Your task to perform on an android device: delete the emails in spam in the gmail app Image 0: 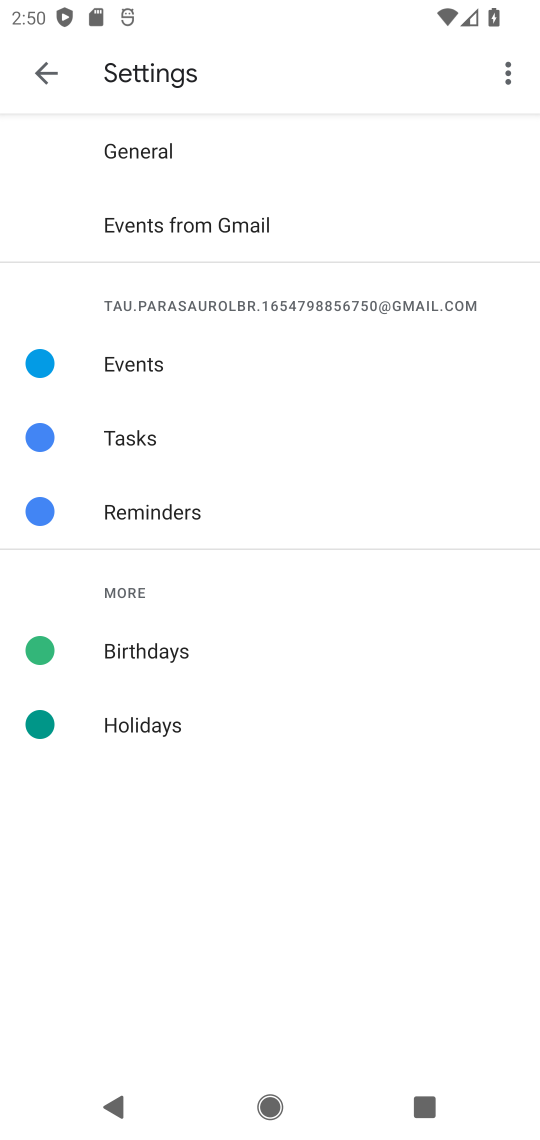
Step 0: press home button
Your task to perform on an android device: delete the emails in spam in the gmail app Image 1: 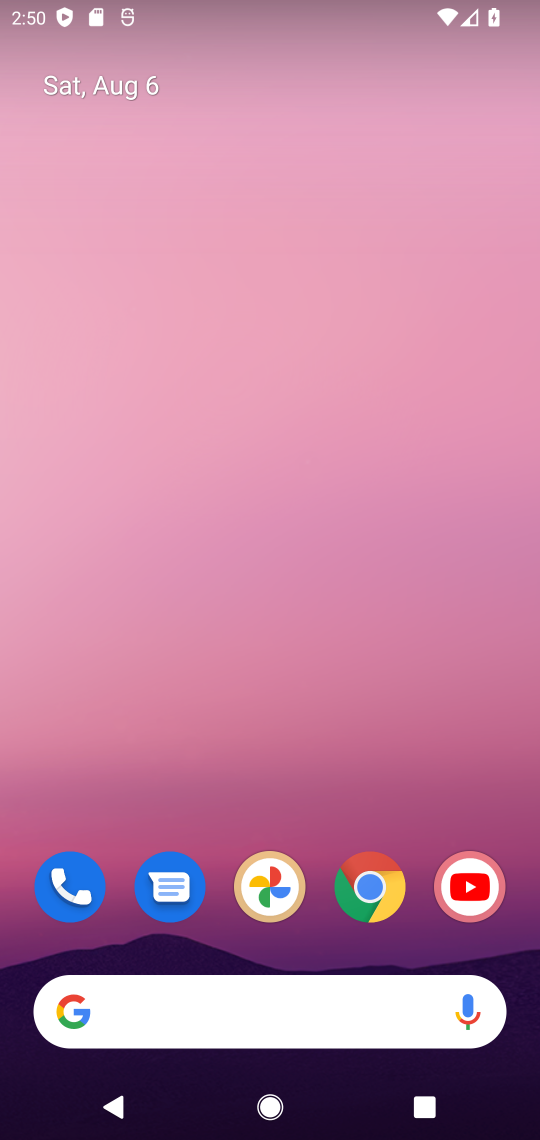
Step 1: drag from (343, 757) to (357, 261)
Your task to perform on an android device: delete the emails in spam in the gmail app Image 2: 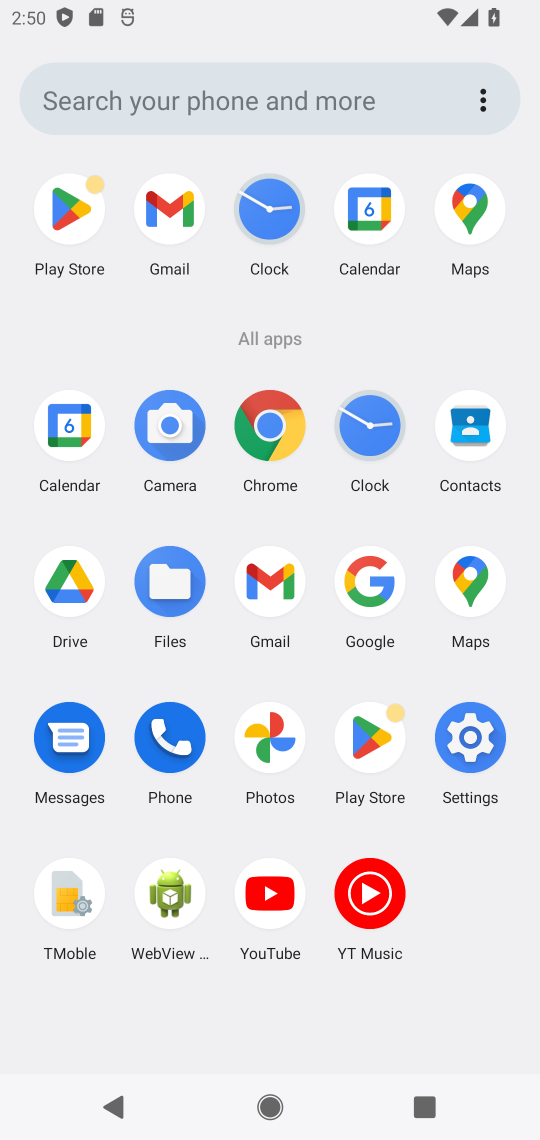
Step 2: click (257, 597)
Your task to perform on an android device: delete the emails in spam in the gmail app Image 3: 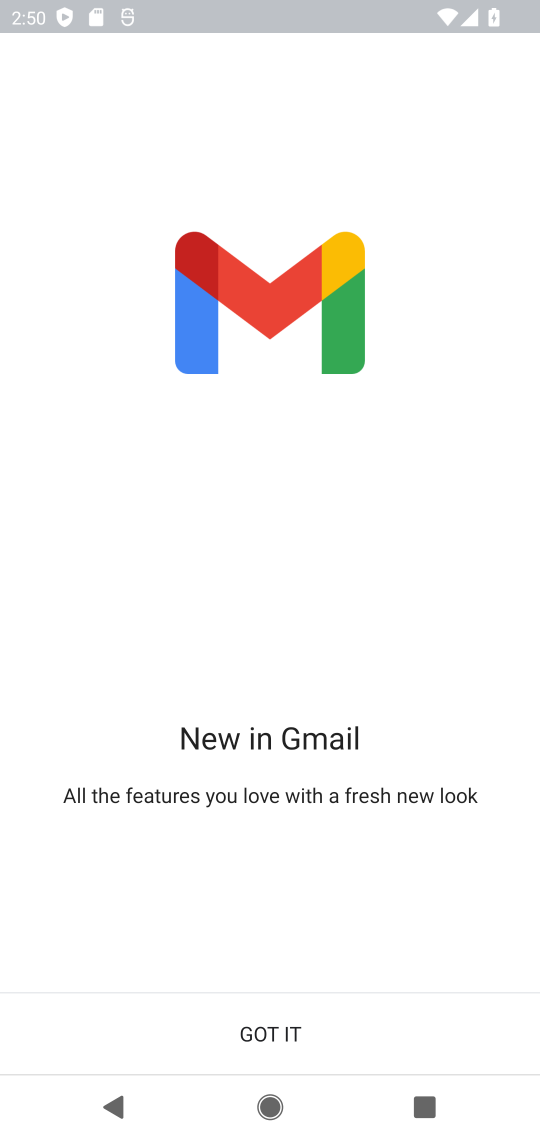
Step 3: click (277, 1038)
Your task to perform on an android device: delete the emails in spam in the gmail app Image 4: 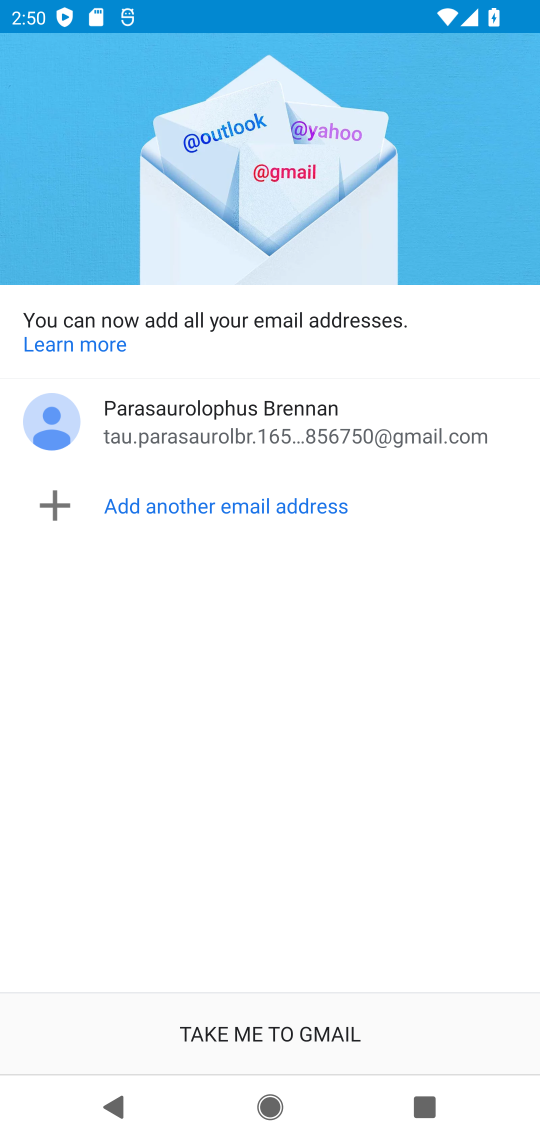
Step 4: click (277, 1038)
Your task to perform on an android device: delete the emails in spam in the gmail app Image 5: 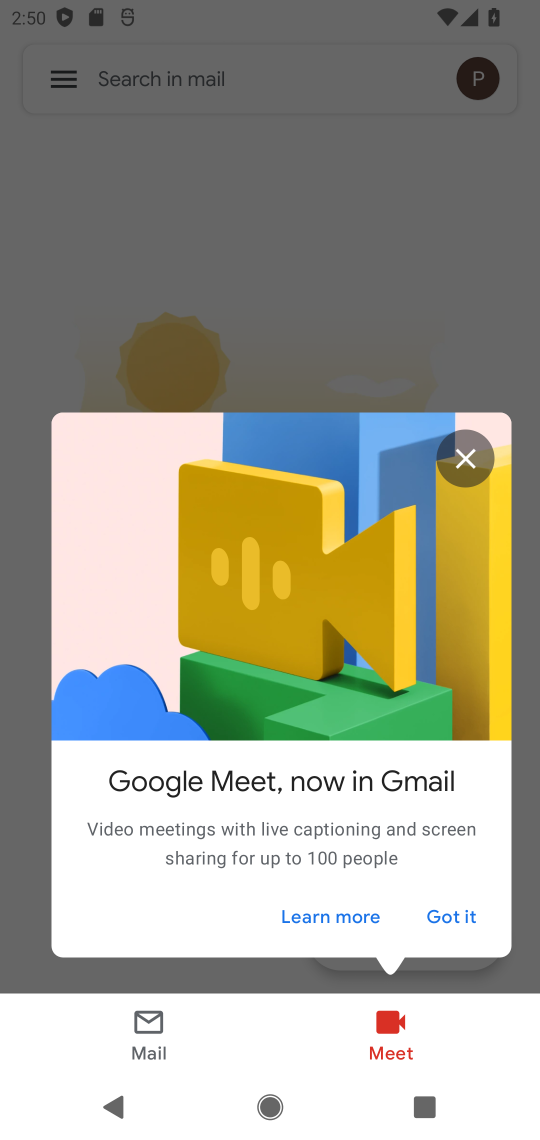
Step 5: click (473, 459)
Your task to perform on an android device: delete the emails in spam in the gmail app Image 6: 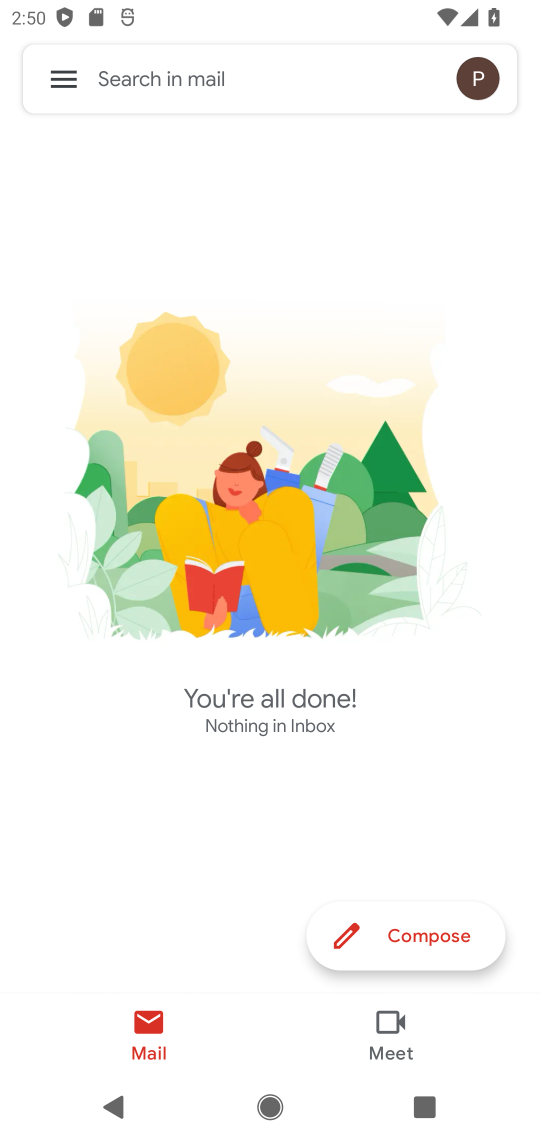
Step 6: click (63, 80)
Your task to perform on an android device: delete the emails in spam in the gmail app Image 7: 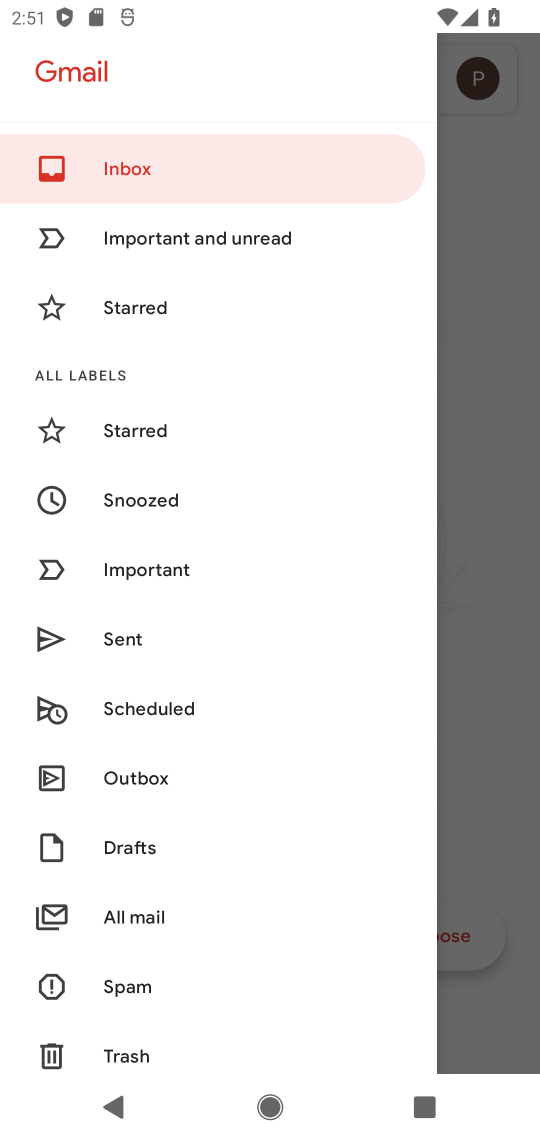
Step 7: drag from (302, 621) to (325, 473)
Your task to perform on an android device: delete the emails in spam in the gmail app Image 8: 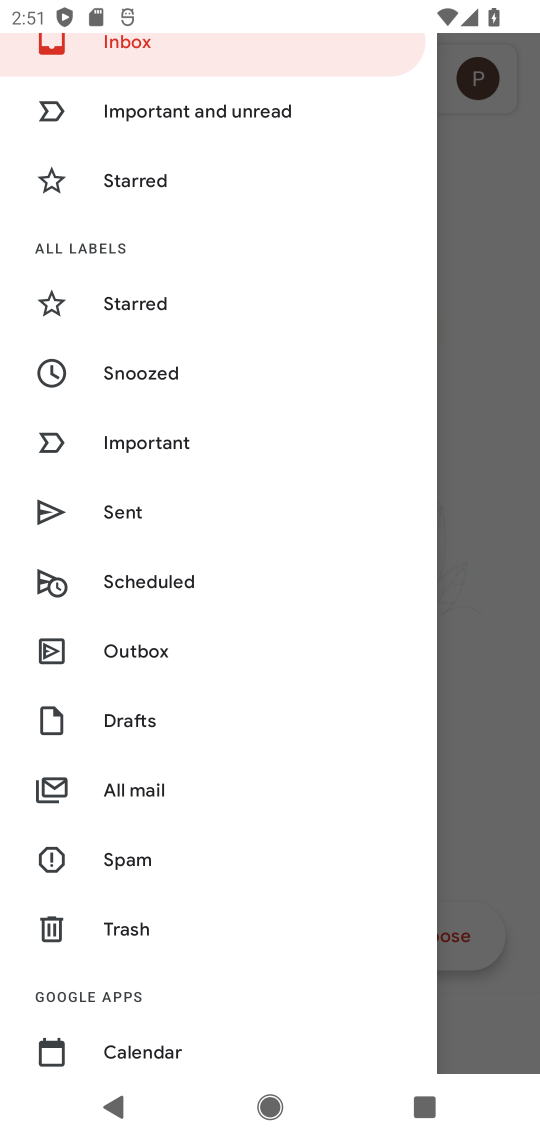
Step 8: drag from (285, 673) to (282, 419)
Your task to perform on an android device: delete the emails in spam in the gmail app Image 9: 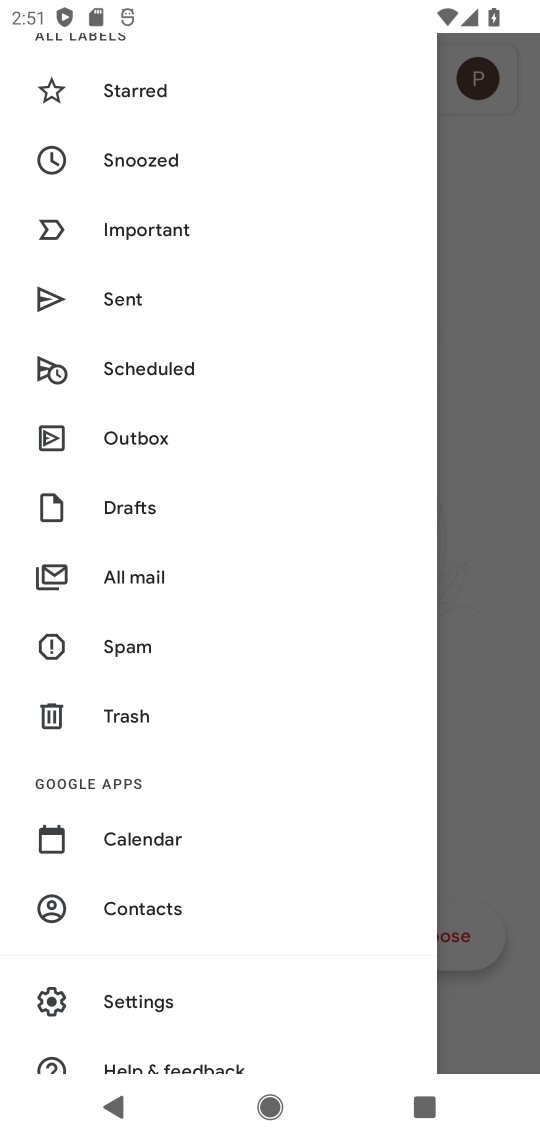
Step 9: drag from (240, 685) to (248, 385)
Your task to perform on an android device: delete the emails in spam in the gmail app Image 10: 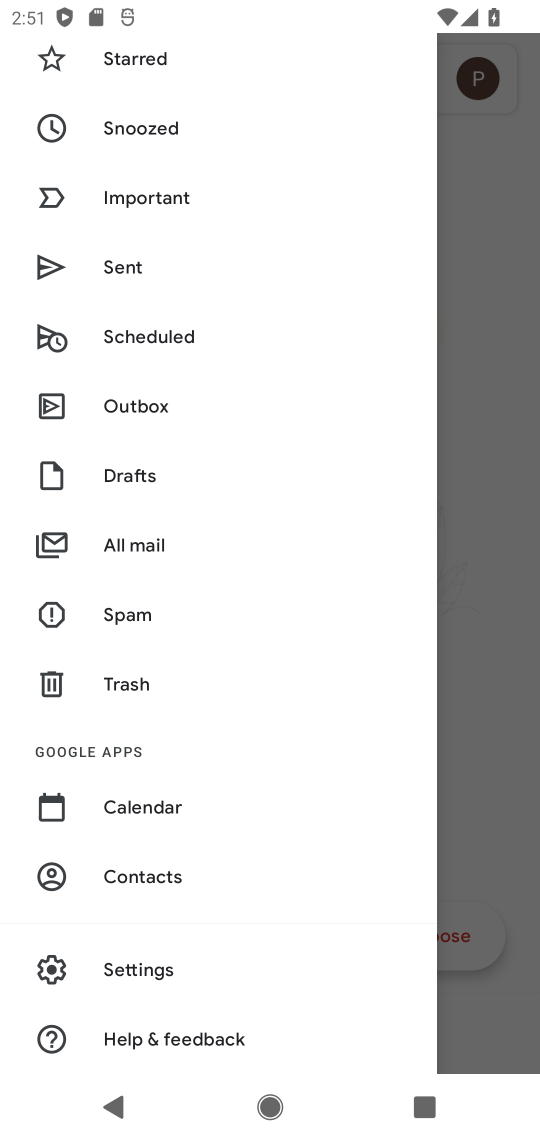
Step 10: click (227, 632)
Your task to perform on an android device: delete the emails in spam in the gmail app Image 11: 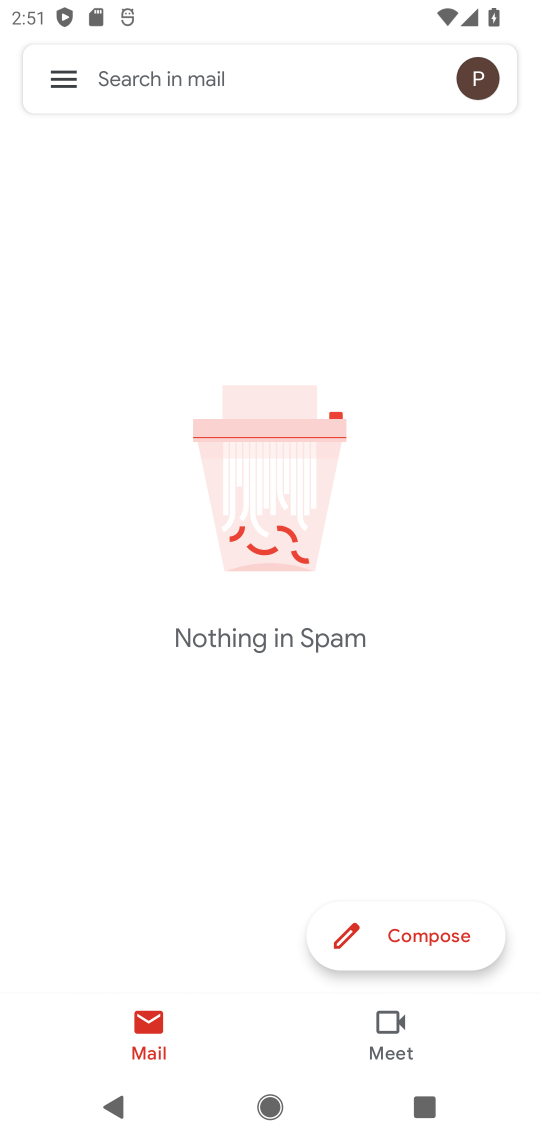
Step 11: task complete